Your task to perform on an android device: Is it going to rain today? Image 0: 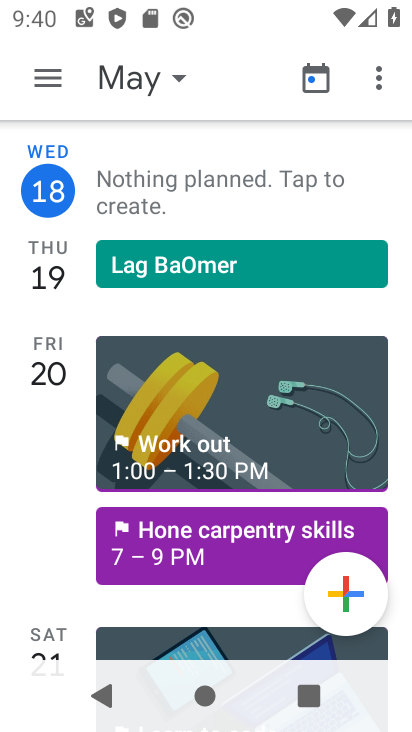
Step 0: press home button
Your task to perform on an android device: Is it going to rain today? Image 1: 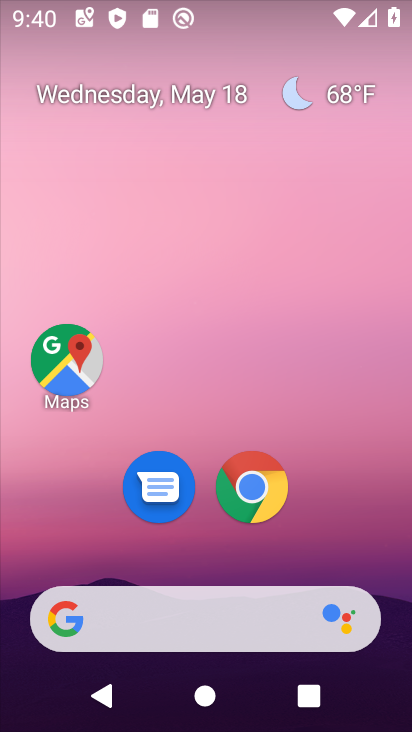
Step 1: drag from (376, 536) to (343, 145)
Your task to perform on an android device: Is it going to rain today? Image 2: 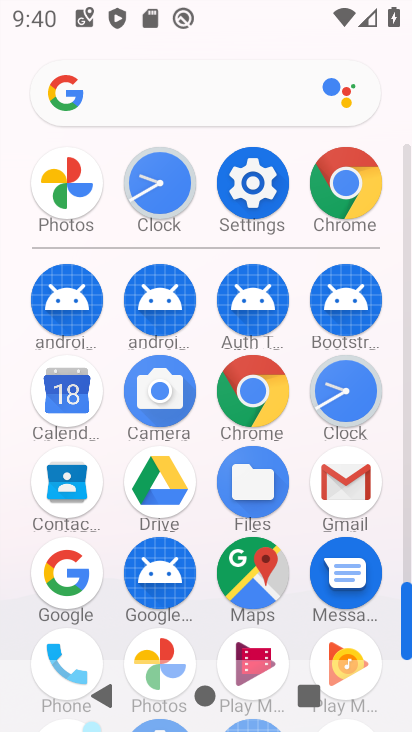
Step 2: click (273, 383)
Your task to perform on an android device: Is it going to rain today? Image 3: 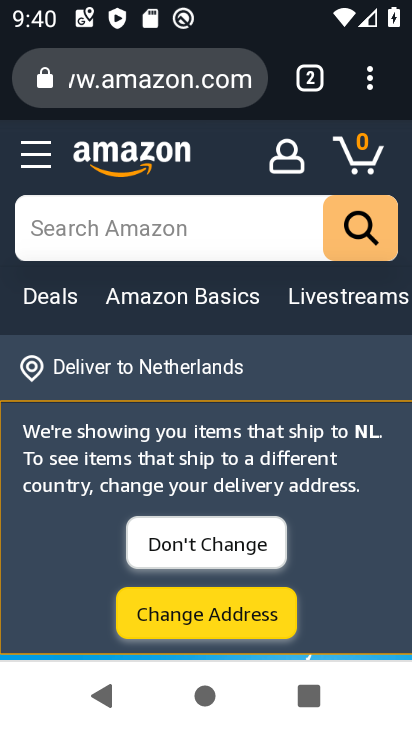
Step 3: click (169, 80)
Your task to perform on an android device: Is it going to rain today? Image 4: 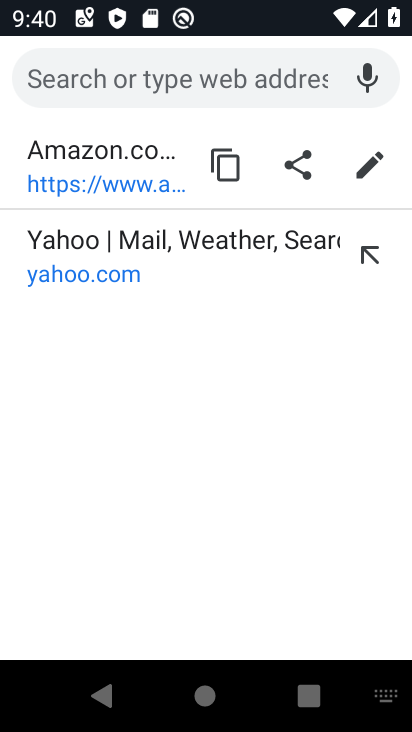
Step 4: type "is it going to rain today"
Your task to perform on an android device: Is it going to rain today? Image 5: 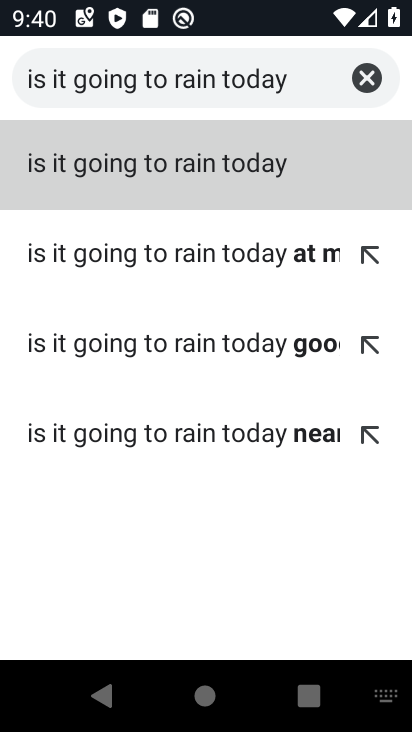
Step 5: click (240, 174)
Your task to perform on an android device: Is it going to rain today? Image 6: 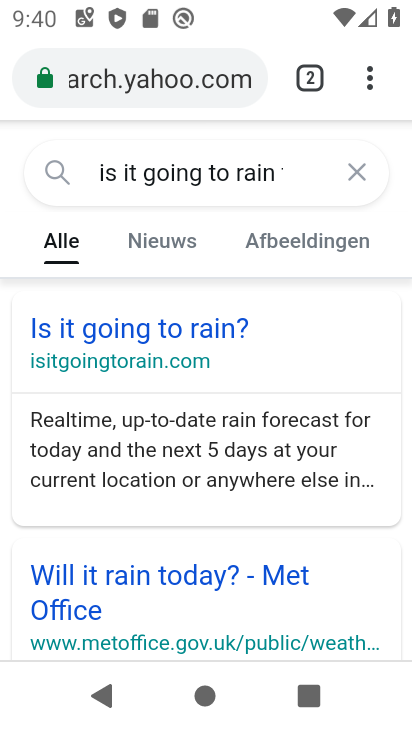
Step 6: click (150, 336)
Your task to perform on an android device: Is it going to rain today? Image 7: 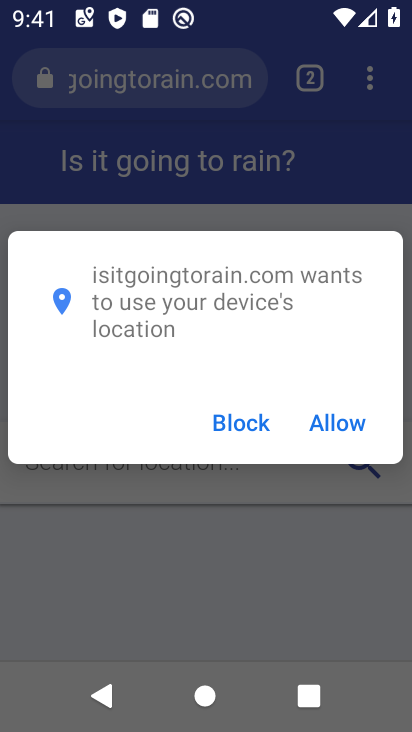
Step 7: click (255, 421)
Your task to perform on an android device: Is it going to rain today? Image 8: 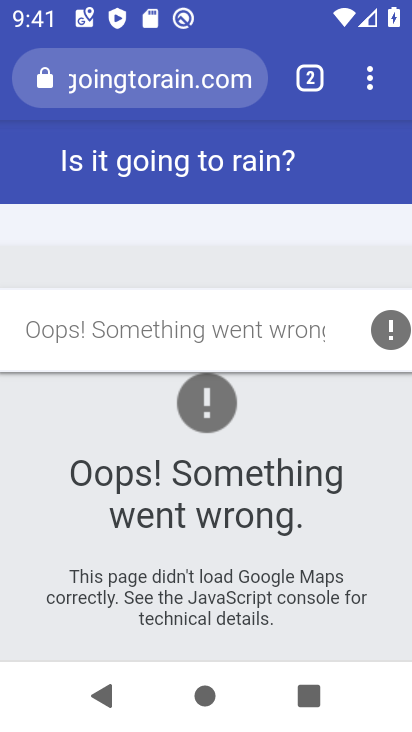
Step 8: task complete